Your task to perform on an android device: Go to internet settings Image 0: 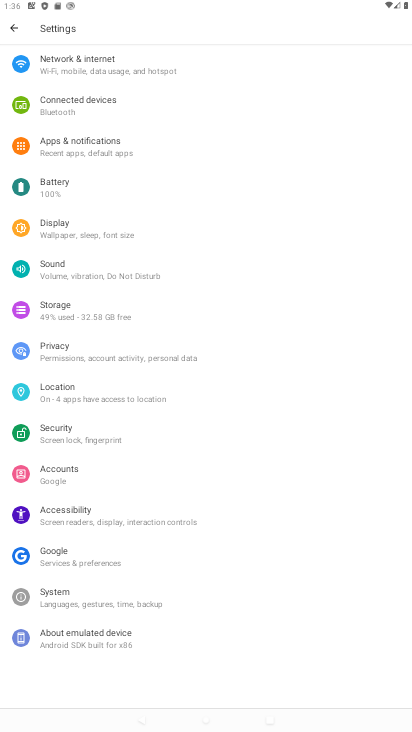
Step 0: click (60, 67)
Your task to perform on an android device: Go to internet settings Image 1: 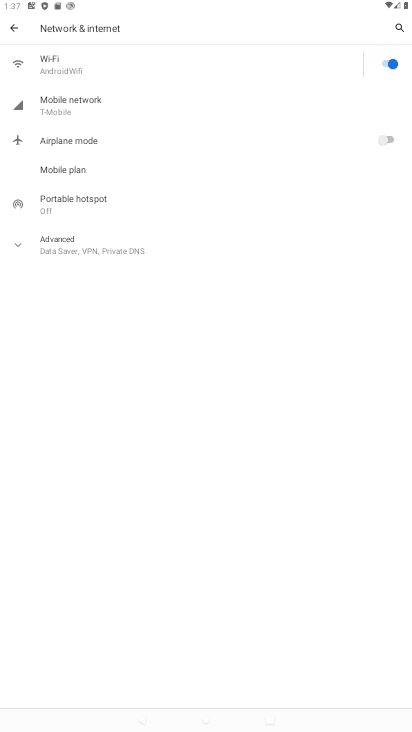
Step 1: task complete